Your task to perform on an android device: Open calendar and show me the fourth week of next month Image 0: 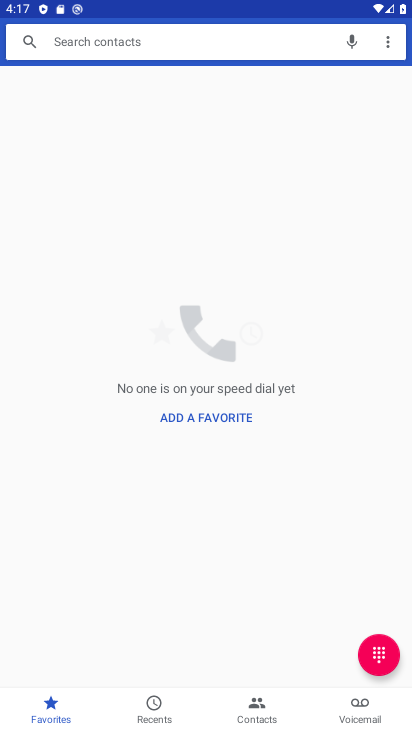
Step 0: press back button
Your task to perform on an android device: Open calendar and show me the fourth week of next month Image 1: 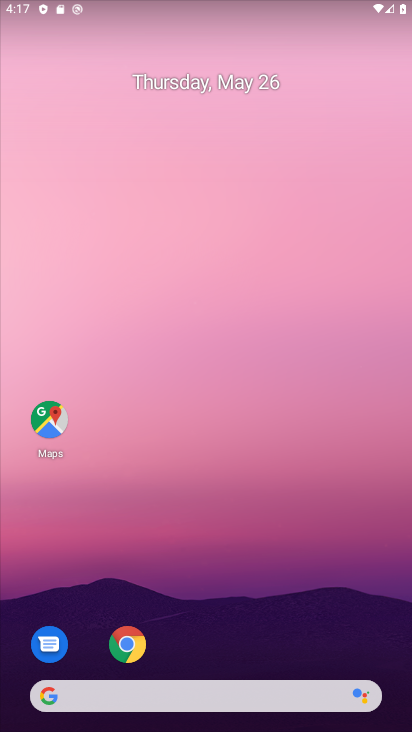
Step 1: drag from (250, 576) to (234, 64)
Your task to perform on an android device: Open calendar and show me the fourth week of next month Image 2: 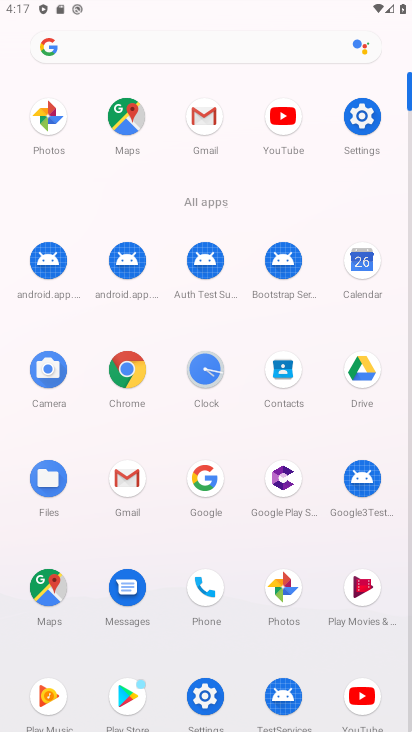
Step 2: click (360, 257)
Your task to perform on an android device: Open calendar and show me the fourth week of next month Image 3: 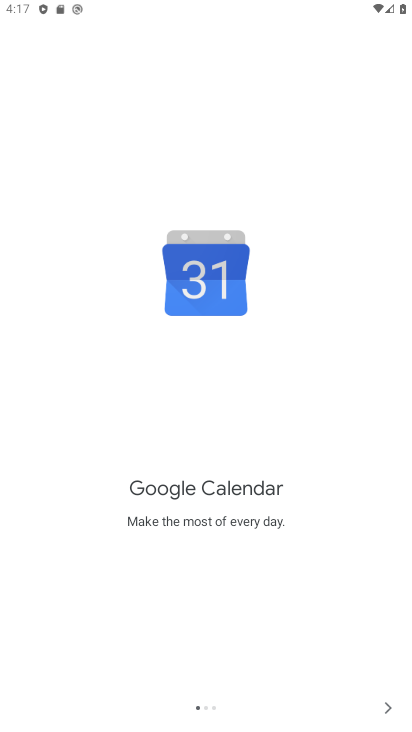
Step 3: click (390, 700)
Your task to perform on an android device: Open calendar and show me the fourth week of next month Image 4: 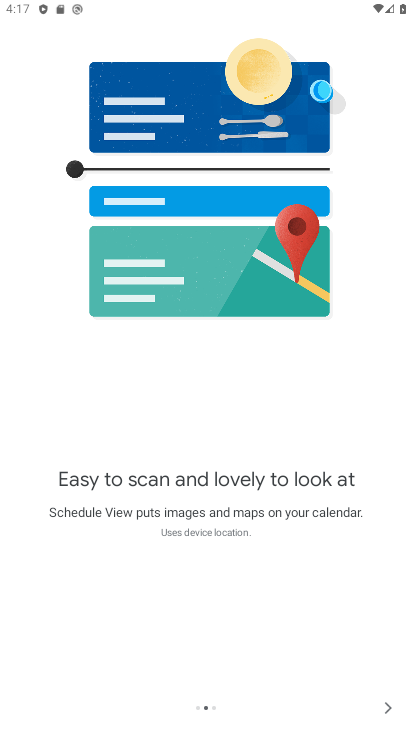
Step 4: click (388, 699)
Your task to perform on an android device: Open calendar and show me the fourth week of next month Image 5: 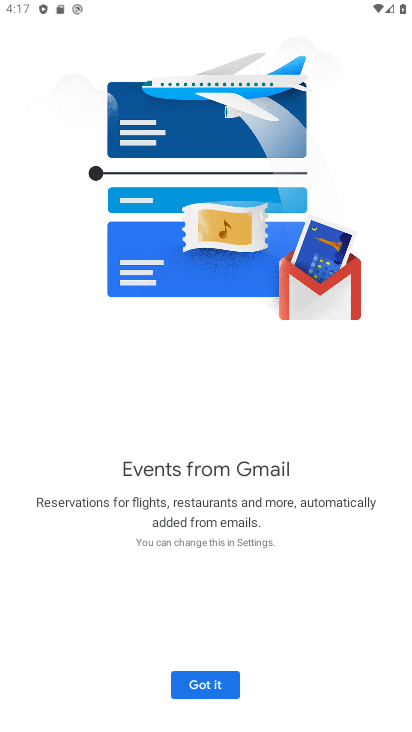
Step 5: click (219, 679)
Your task to perform on an android device: Open calendar and show me the fourth week of next month Image 6: 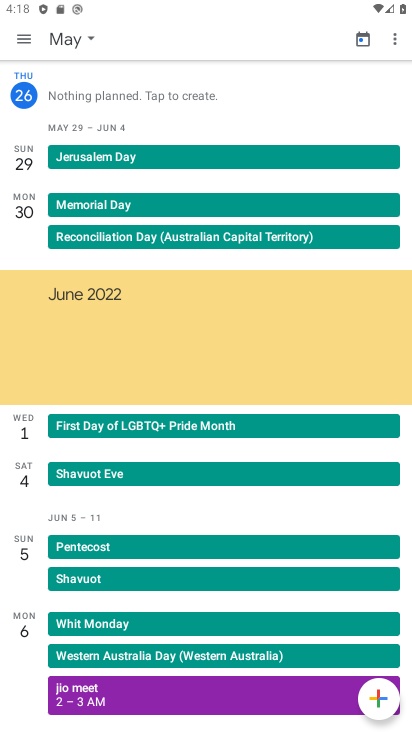
Step 6: click (71, 40)
Your task to perform on an android device: Open calendar and show me the fourth week of next month Image 7: 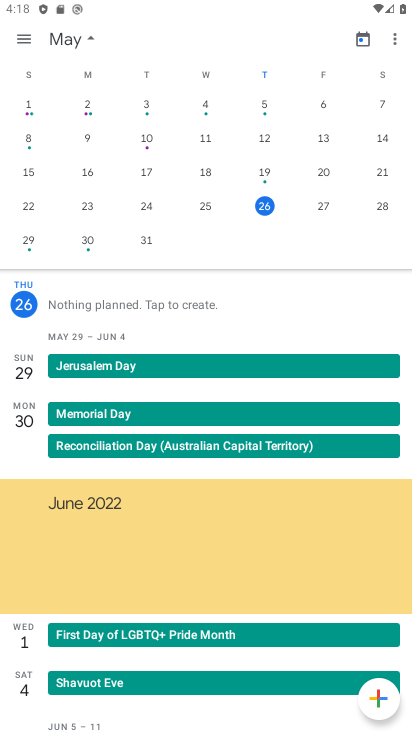
Step 7: drag from (395, 164) to (5, 150)
Your task to perform on an android device: Open calendar and show me the fourth week of next month Image 8: 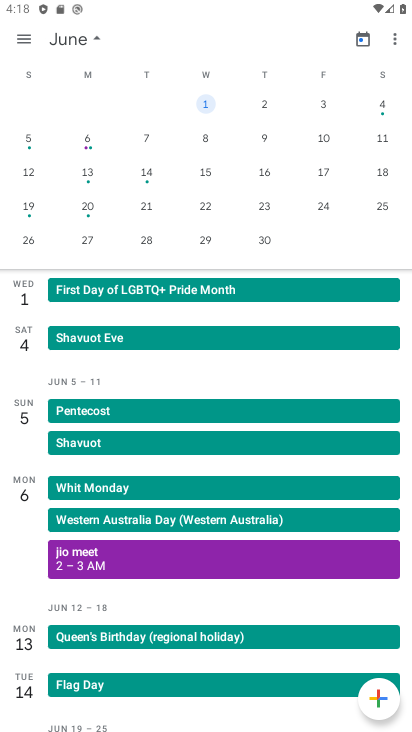
Step 8: click (26, 208)
Your task to perform on an android device: Open calendar and show me the fourth week of next month Image 9: 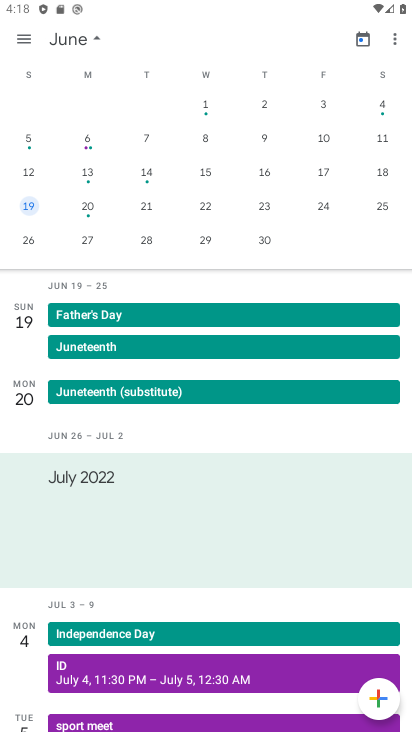
Step 9: click (25, 38)
Your task to perform on an android device: Open calendar and show me the fourth week of next month Image 10: 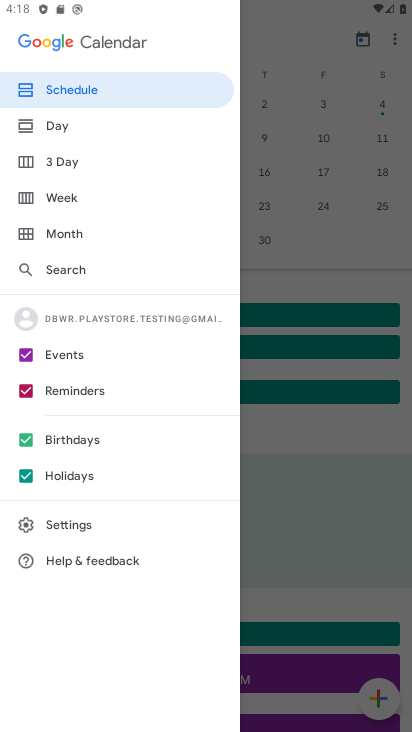
Step 10: click (82, 200)
Your task to perform on an android device: Open calendar and show me the fourth week of next month Image 11: 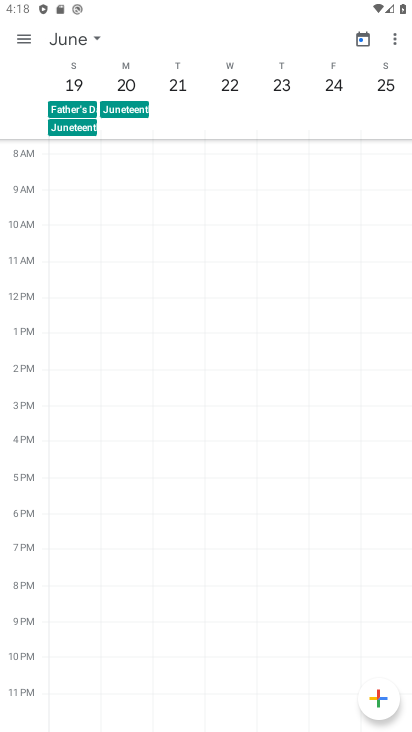
Step 11: task complete